Your task to perform on an android device: check android version Image 0: 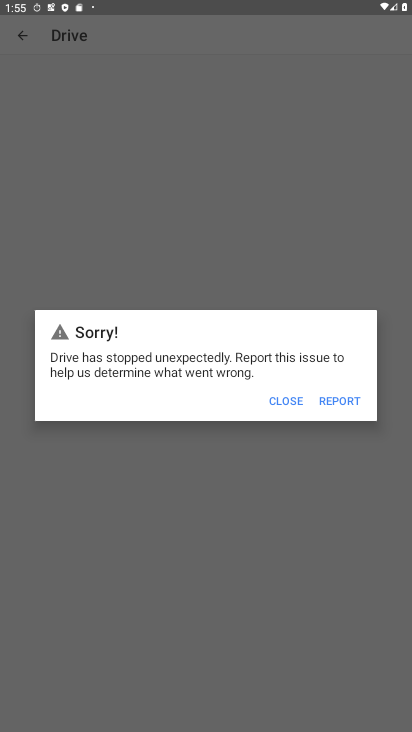
Step 0: press home button
Your task to perform on an android device: check android version Image 1: 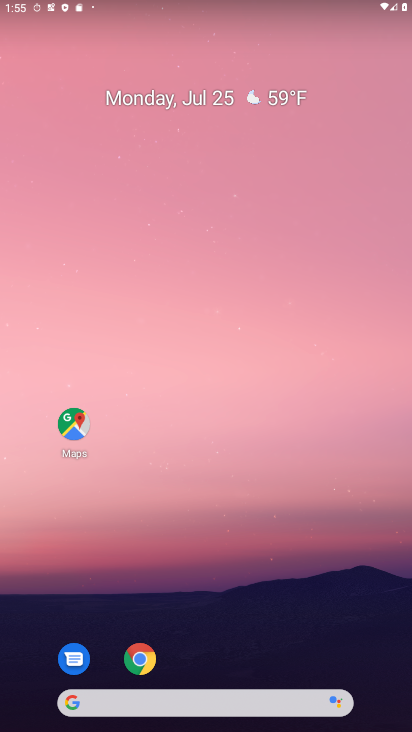
Step 1: drag from (244, 664) to (245, 13)
Your task to perform on an android device: check android version Image 2: 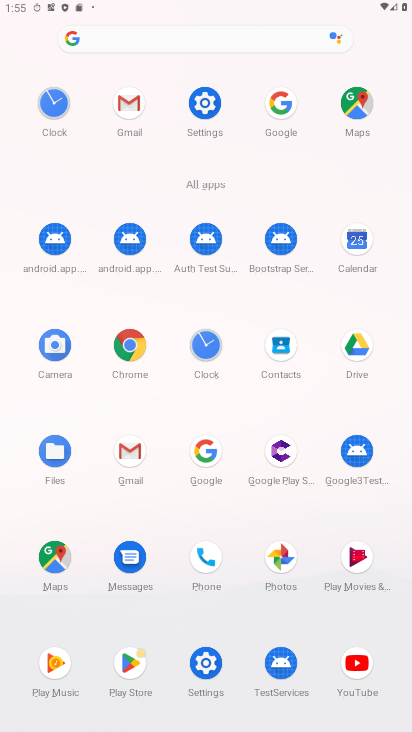
Step 2: click (205, 111)
Your task to perform on an android device: check android version Image 3: 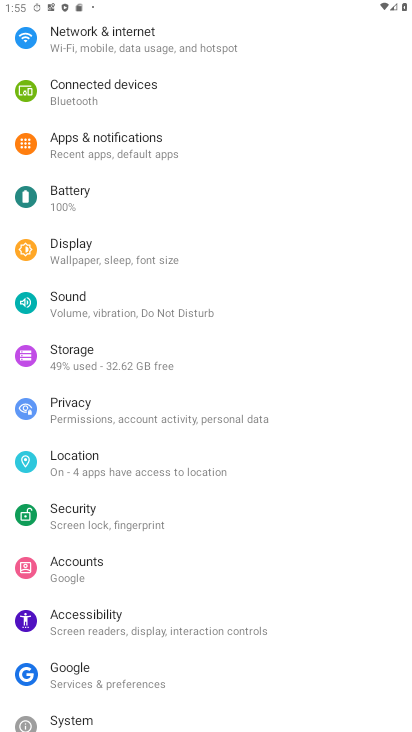
Step 3: drag from (156, 629) to (179, 21)
Your task to perform on an android device: check android version Image 4: 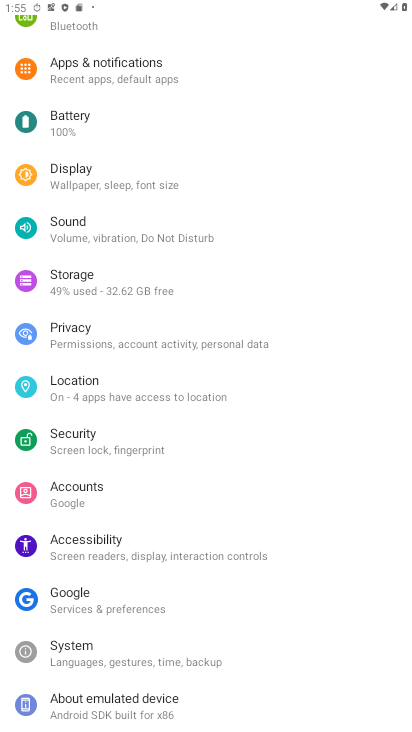
Step 4: click (114, 710)
Your task to perform on an android device: check android version Image 5: 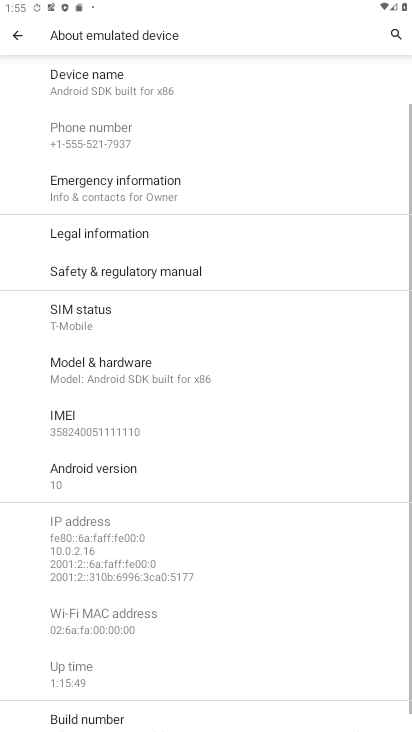
Step 5: click (69, 464)
Your task to perform on an android device: check android version Image 6: 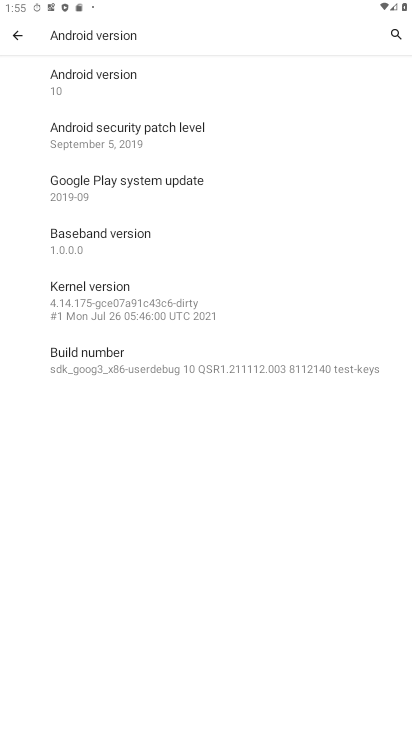
Step 6: task complete